Your task to perform on an android device: turn off sleep mode Image 0: 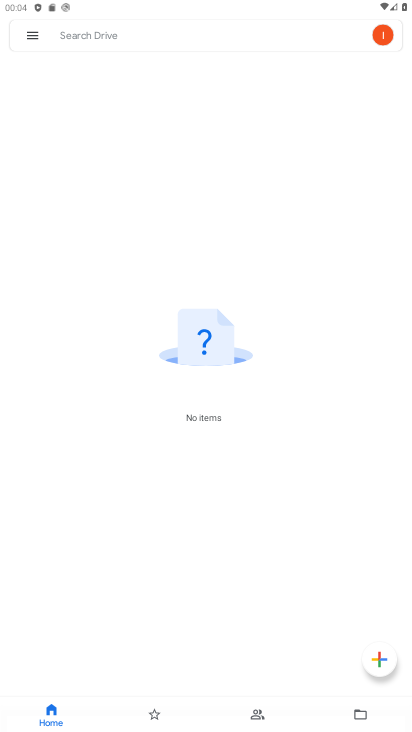
Step 0: press home button
Your task to perform on an android device: turn off sleep mode Image 1: 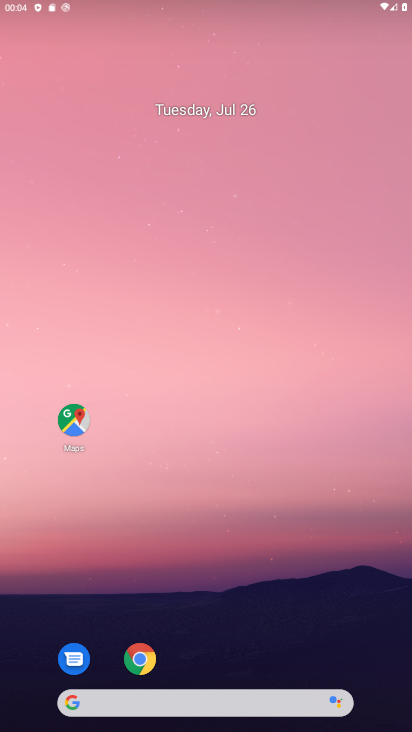
Step 1: drag from (326, 547) to (357, 4)
Your task to perform on an android device: turn off sleep mode Image 2: 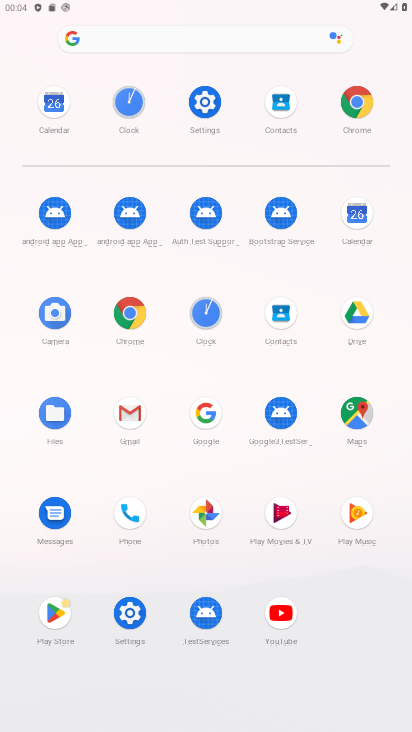
Step 2: click (214, 101)
Your task to perform on an android device: turn off sleep mode Image 3: 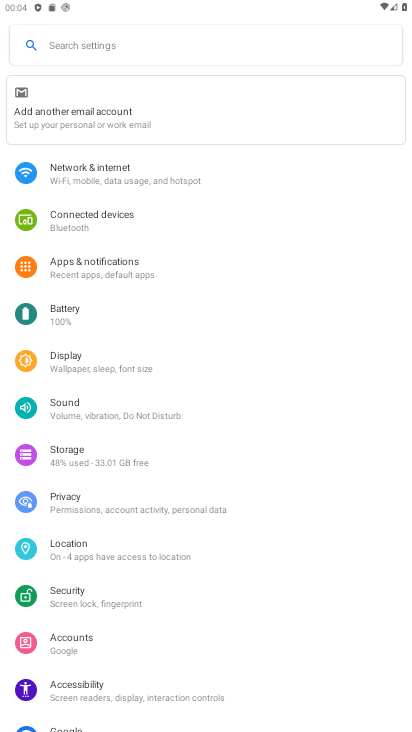
Step 3: drag from (169, 600) to (215, 279)
Your task to perform on an android device: turn off sleep mode Image 4: 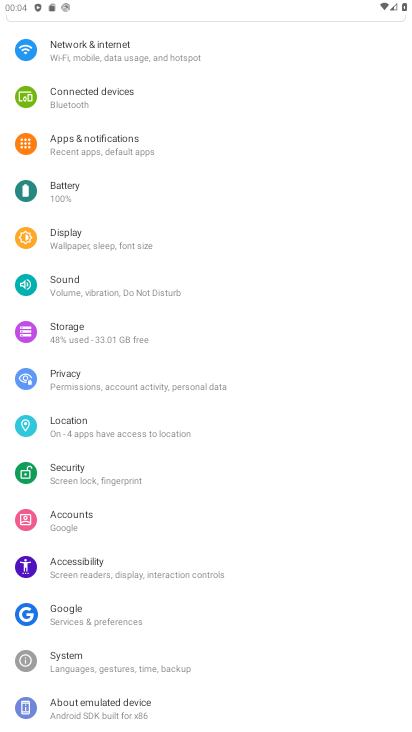
Step 4: click (97, 239)
Your task to perform on an android device: turn off sleep mode Image 5: 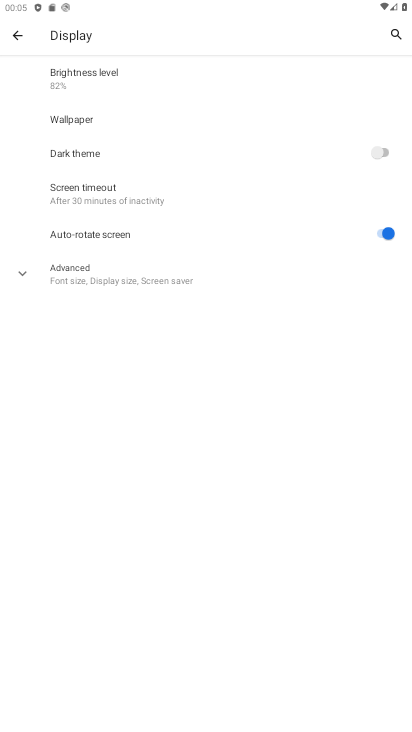
Step 5: click (118, 190)
Your task to perform on an android device: turn off sleep mode Image 6: 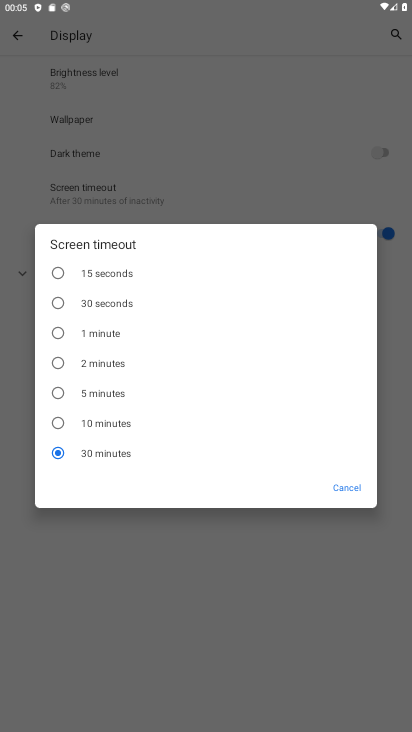
Step 6: task complete